Your task to perform on an android device: clear all cookies in the chrome app Image 0: 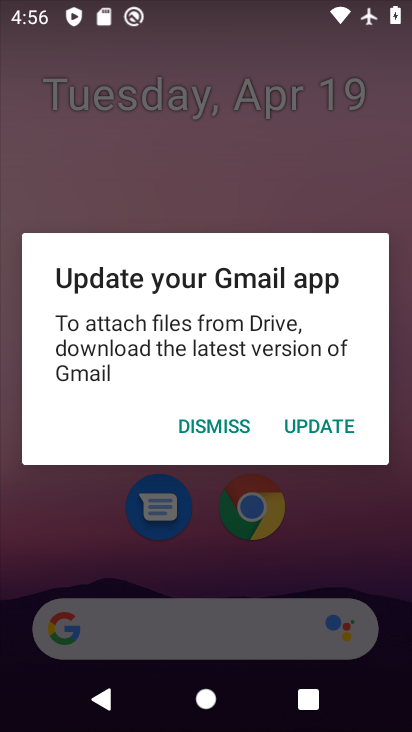
Step 0: task impossible